Your task to perform on an android device: allow notifications from all sites in the chrome app Image 0: 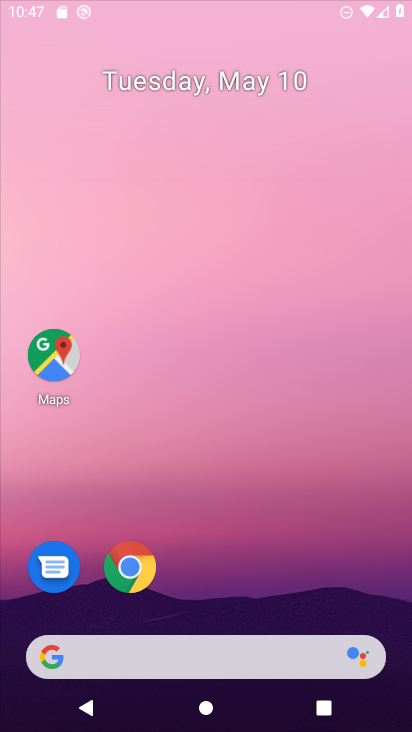
Step 0: click (346, 158)
Your task to perform on an android device: allow notifications from all sites in the chrome app Image 1: 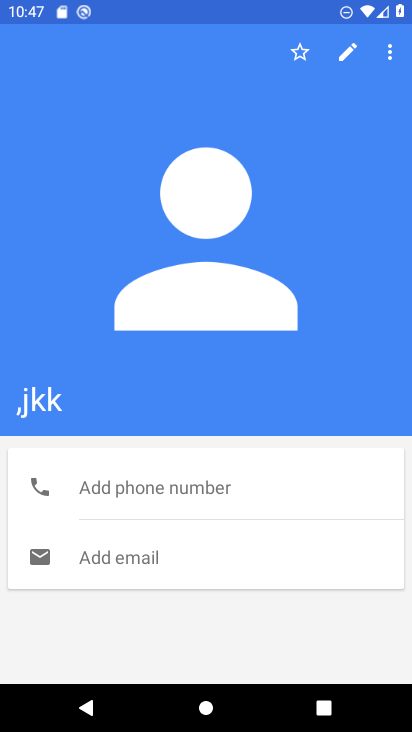
Step 1: press home button
Your task to perform on an android device: allow notifications from all sites in the chrome app Image 2: 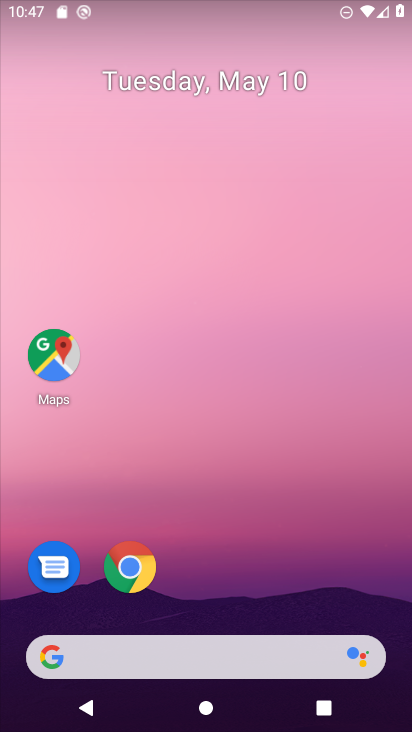
Step 2: click (130, 566)
Your task to perform on an android device: allow notifications from all sites in the chrome app Image 3: 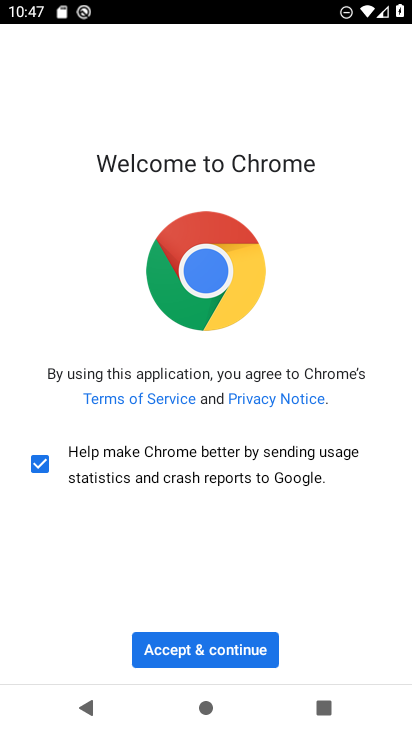
Step 3: click (229, 646)
Your task to perform on an android device: allow notifications from all sites in the chrome app Image 4: 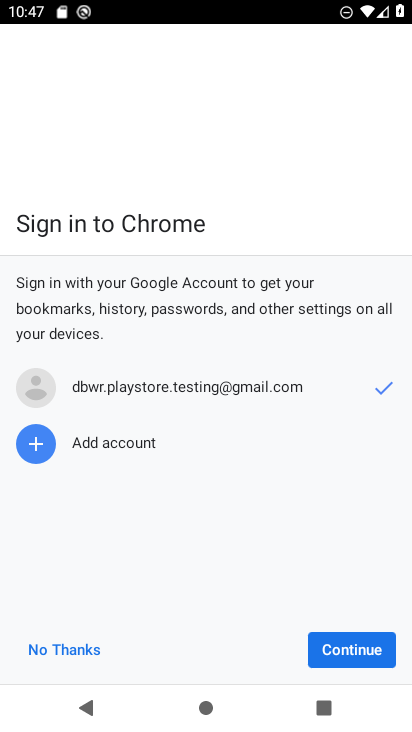
Step 4: click (360, 644)
Your task to perform on an android device: allow notifications from all sites in the chrome app Image 5: 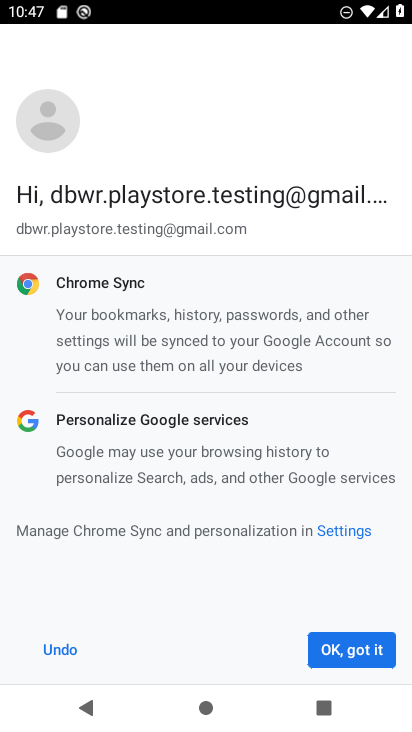
Step 5: click (357, 659)
Your task to perform on an android device: allow notifications from all sites in the chrome app Image 6: 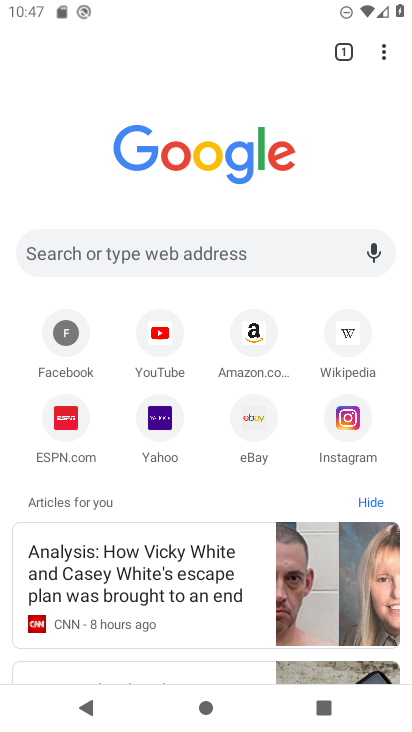
Step 6: drag from (384, 56) to (188, 436)
Your task to perform on an android device: allow notifications from all sites in the chrome app Image 7: 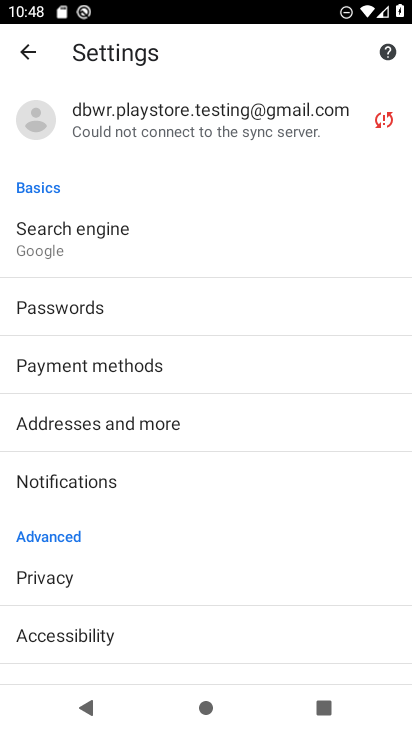
Step 7: click (65, 476)
Your task to perform on an android device: allow notifications from all sites in the chrome app Image 8: 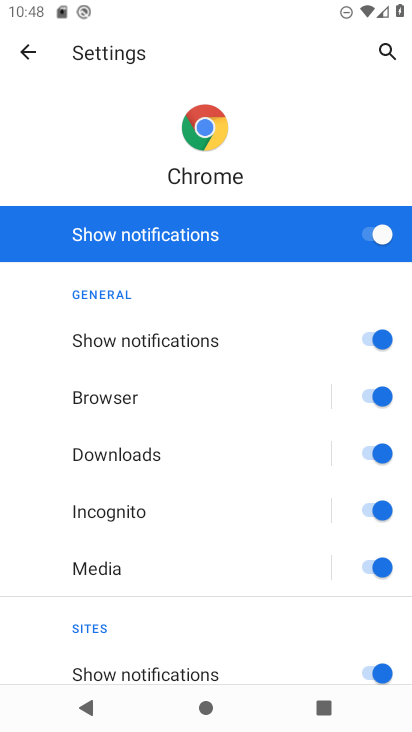
Step 8: task complete